Your task to perform on an android device: Go to Amazon Image 0: 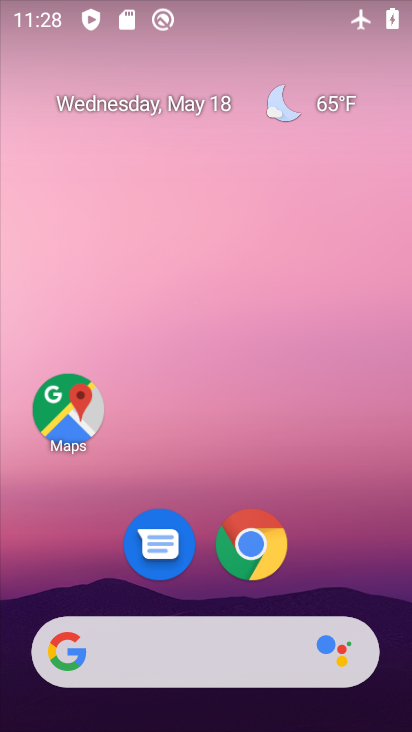
Step 0: drag from (365, 572) to (365, 54)
Your task to perform on an android device: Go to Amazon Image 1: 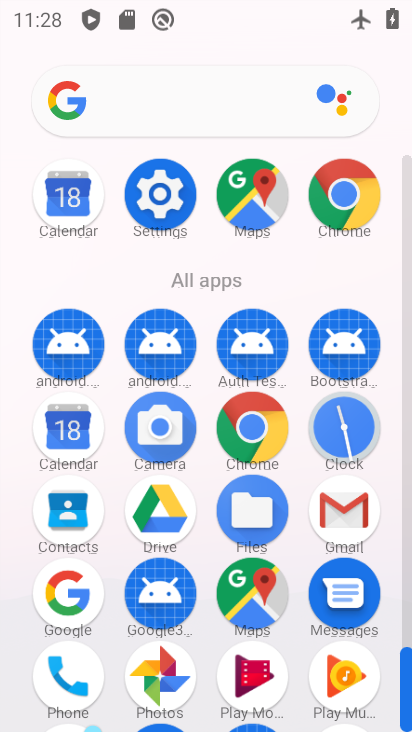
Step 1: click (271, 450)
Your task to perform on an android device: Go to Amazon Image 2: 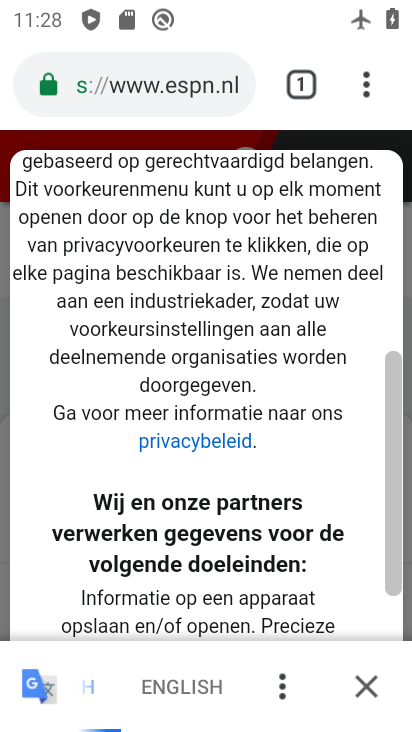
Step 2: press back button
Your task to perform on an android device: Go to Amazon Image 3: 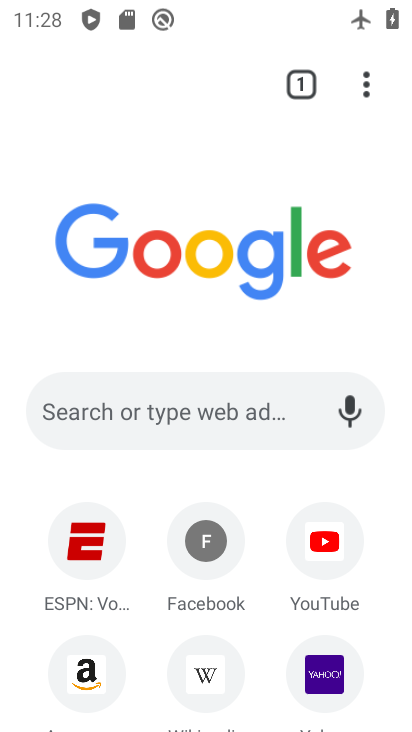
Step 3: drag from (385, 655) to (388, 435)
Your task to perform on an android device: Go to Amazon Image 4: 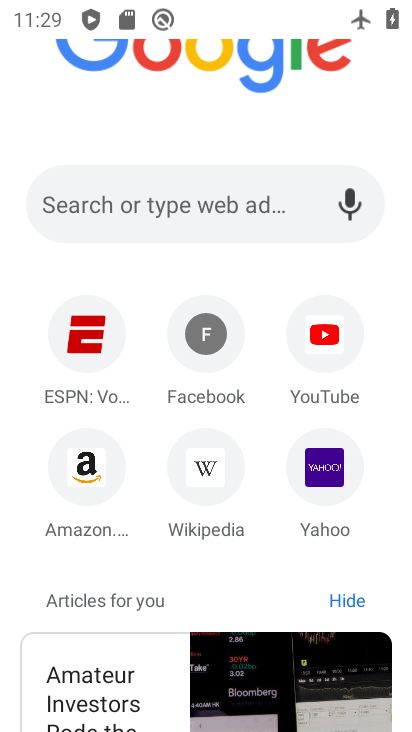
Step 4: click (52, 482)
Your task to perform on an android device: Go to Amazon Image 5: 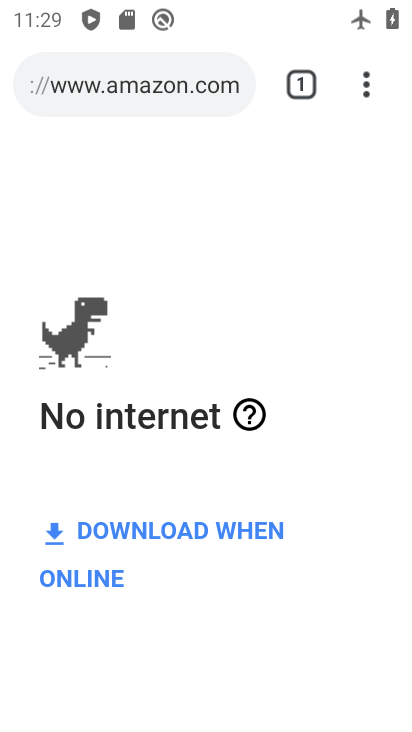
Step 5: task complete